Your task to perform on an android device: Open wifi settings Image 0: 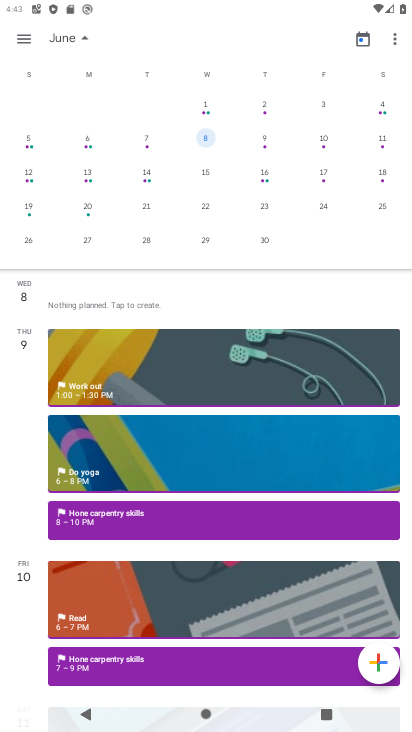
Step 0: drag from (118, 7) to (157, 534)
Your task to perform on an android device: Open wifi settings Image 1: 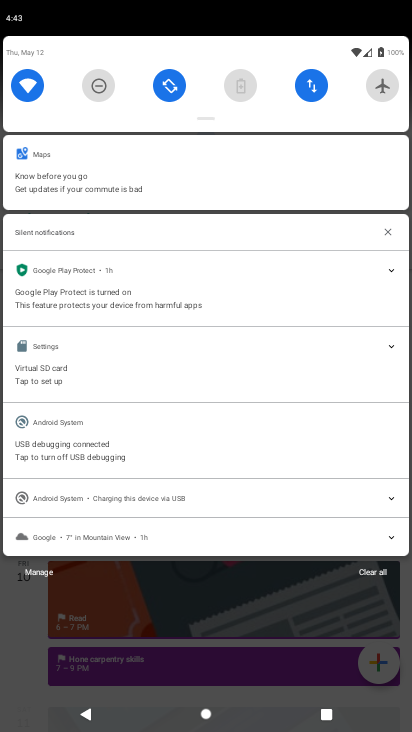
Step 1: click (29, 98)
Your task to perform on an android device: Open wifi settings Image 2: 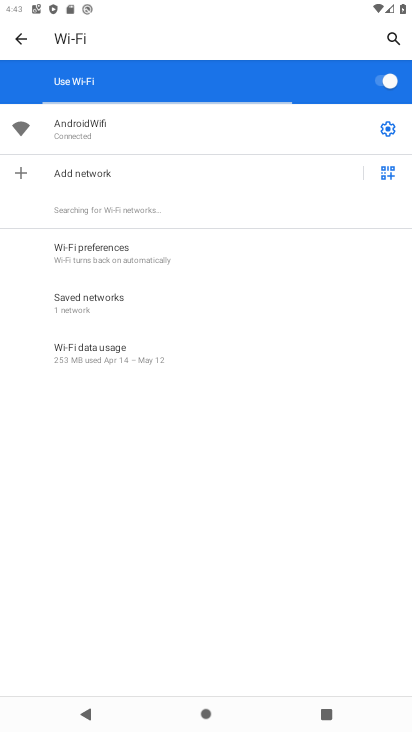
Step 2: task complete